Your task to perform on an android device: turn on showing notifications on the lock screen Image 0: 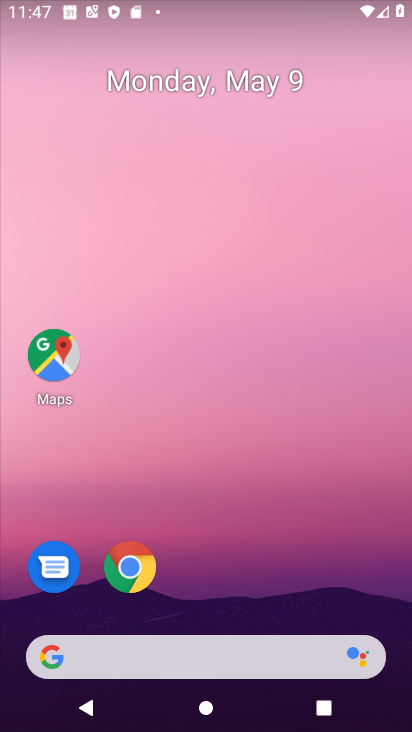
Step 0: drag from (189, 648) to (285, 54)
Your task to perform on an android device: turn on showing notifications on the lock screen Image 1: 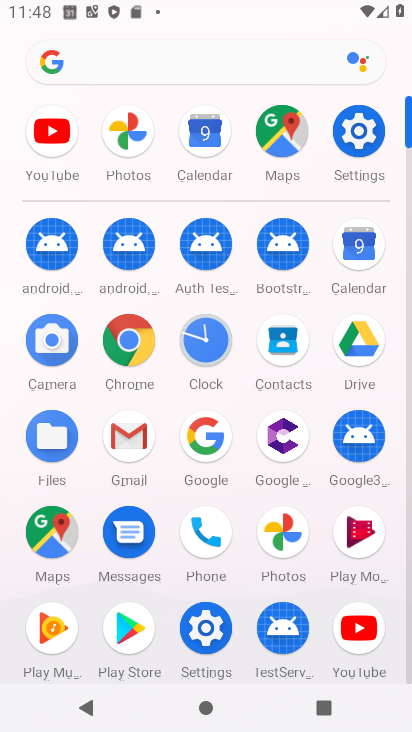
Step 1: click (219, 647)
Your task to perform on an android device: turn on showing notifications on the lock screen Image 2: 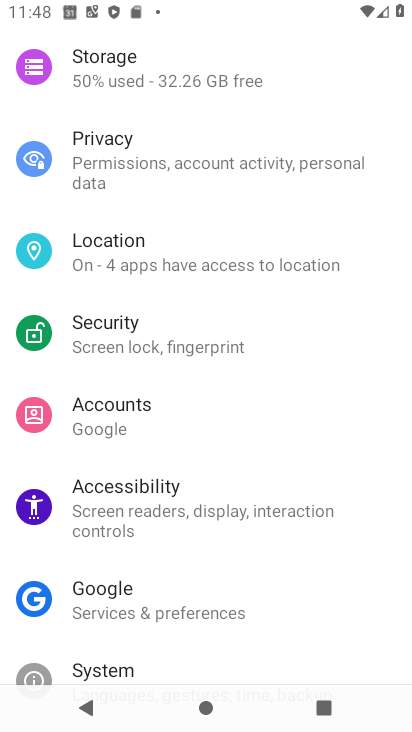
Step 2: drag from (244, 293) to (276, 583)
Your task to perform on an android device: turn on showing notifications on the lock screen Image 3: 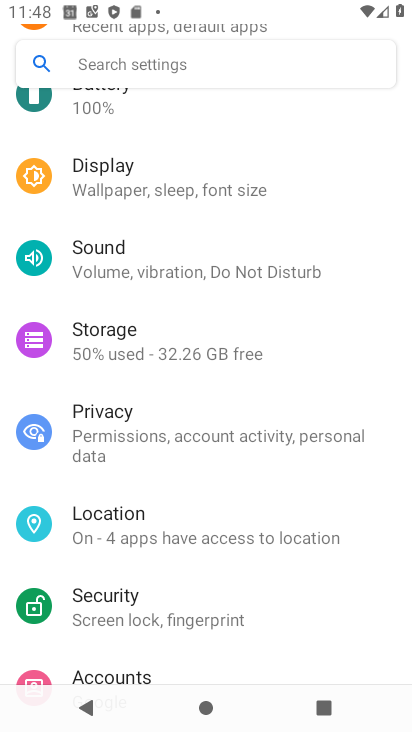
Step 3: drag from (191, 109) to (289, 558)
Your task to perform on an android device: turn on showing notifications on the lock screen Image 4: 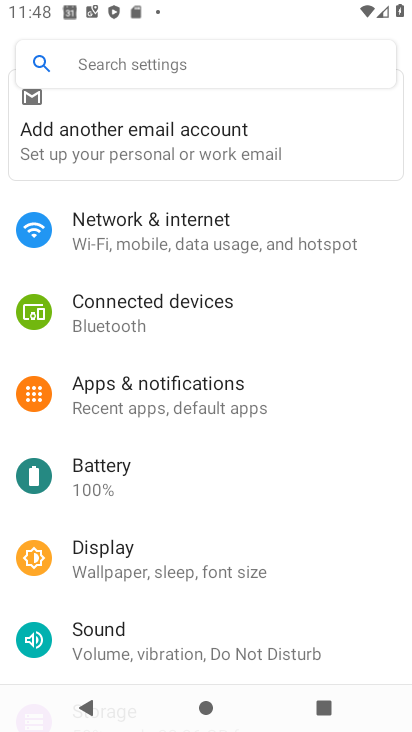
Step 4: click (226, 399)
Your task to perform on an android device: turn on showing notifications on the lock screen Image 5: 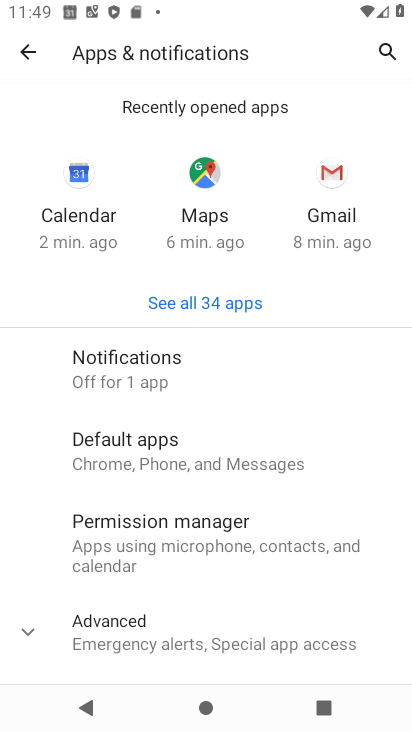
Step 5: drag from (227, 601) to (232, 61)
Your task to perform on an android device: turn on showing notifications on the lock screen Image 6: 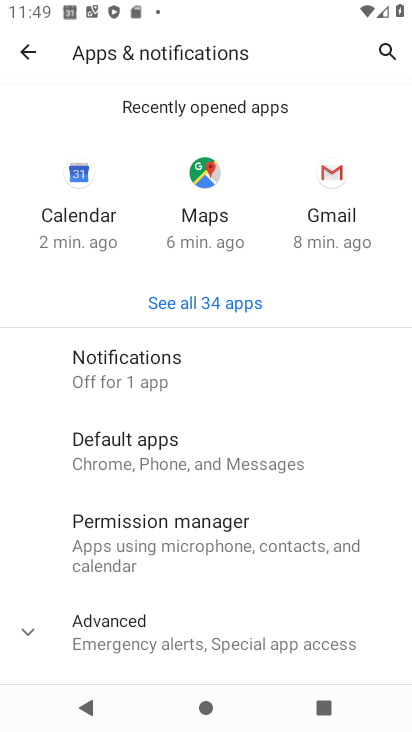
Step 6: click (189, 370)
Your task to perform on an android device: turn on showing notifications on the lock screen Image 7: 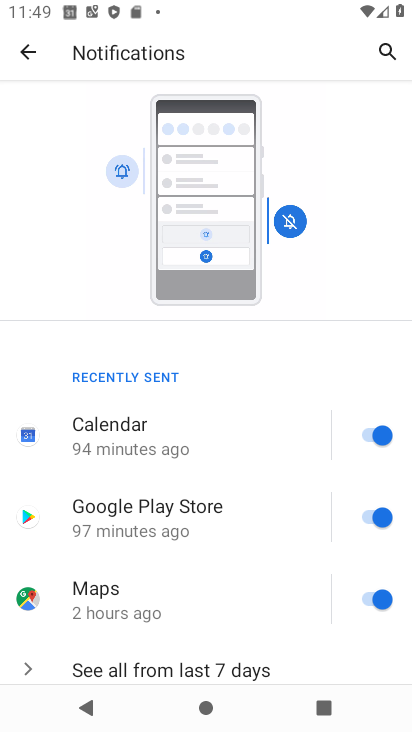
Step 7: drag from (212, 597) to (188, 172)
Your task to perform on an android device: turn on showing notifications on the lock screen Image 8: 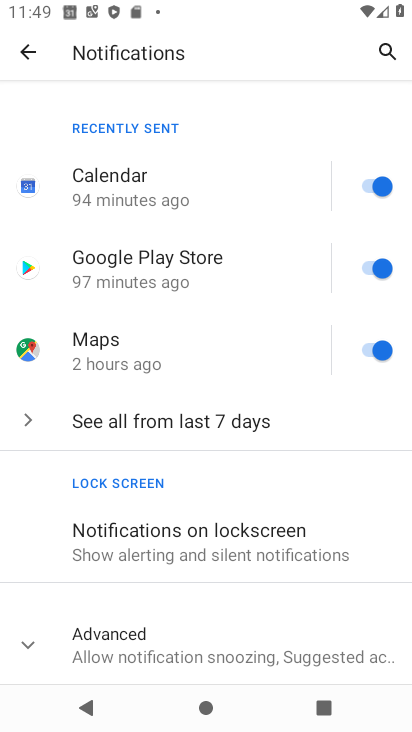
Step 8: click (240, 560)
Your task to perform on an android device: turn on showing notifications on the lock screen Image 9: 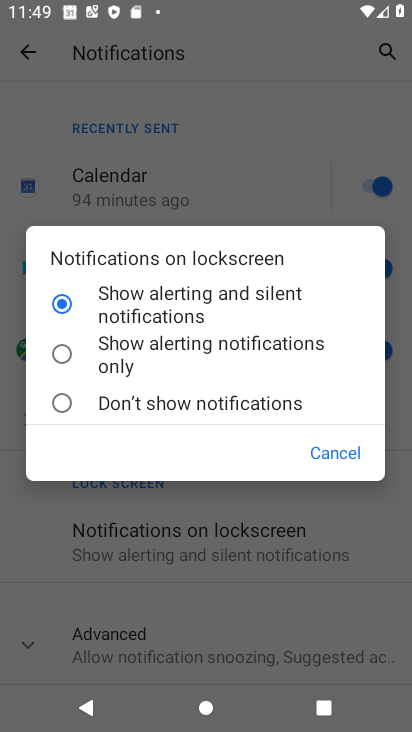
Step 9: click (162, 325)
Your task to perform on an android device: turn on showing notifications on the lock screen Image 10: 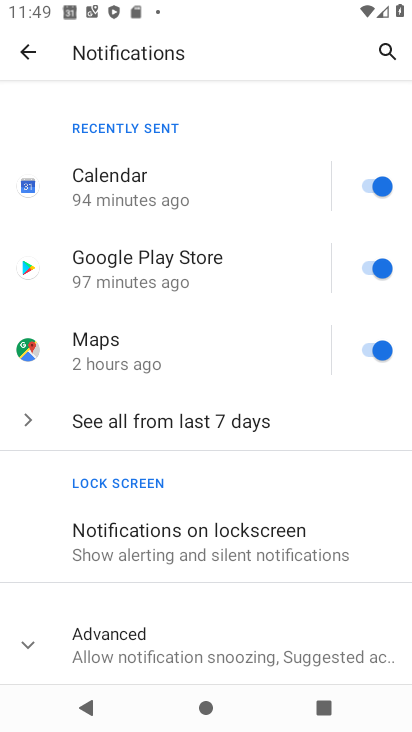
Step 10: task complete